Your task to perform on an android device: empty trash in google photos Image 0: 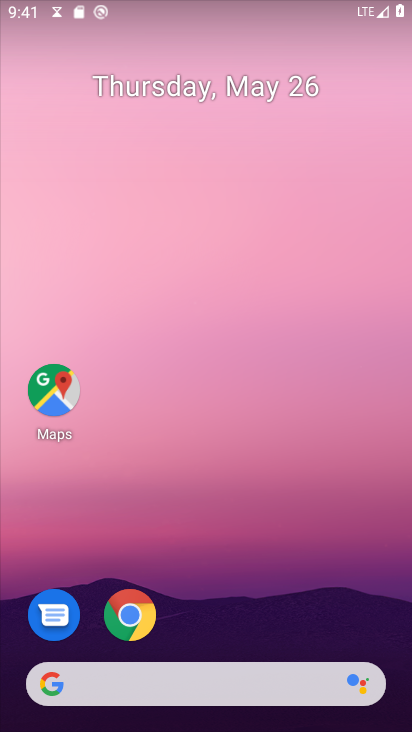
Step 0: drag from (216, 622) to (259, 244)
Your task to perform on an android device: empty trash in google photos Image 1: 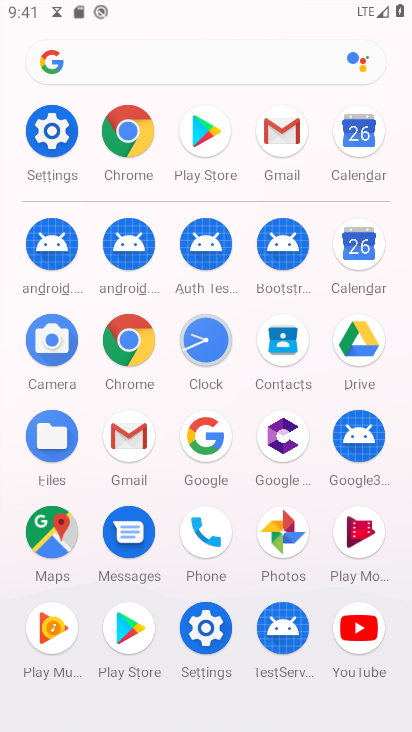
Step 1: click (280, 518)
Your task to perform on an android device: empty trash in google photos Image 2: 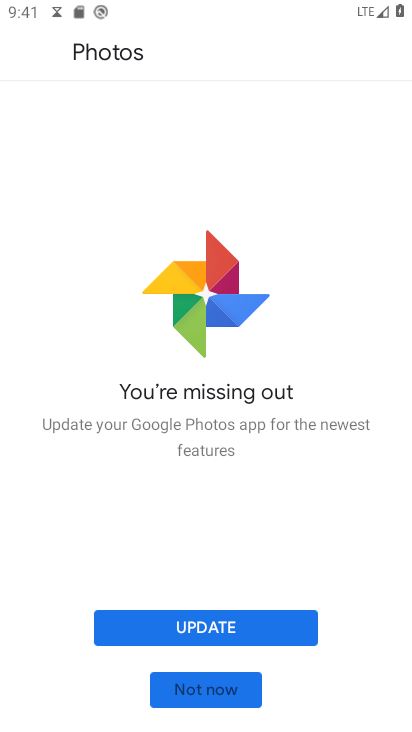
Step 2: click (218, 682)
Your task to perform on an android device: empty trash in google photos Image 3: 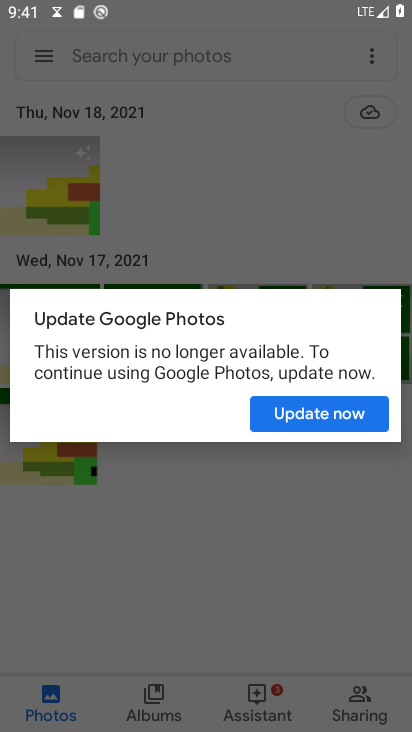
Step 3: click (327, 411)
Your task to perform on an android device: empty trash in google photos Image 4: 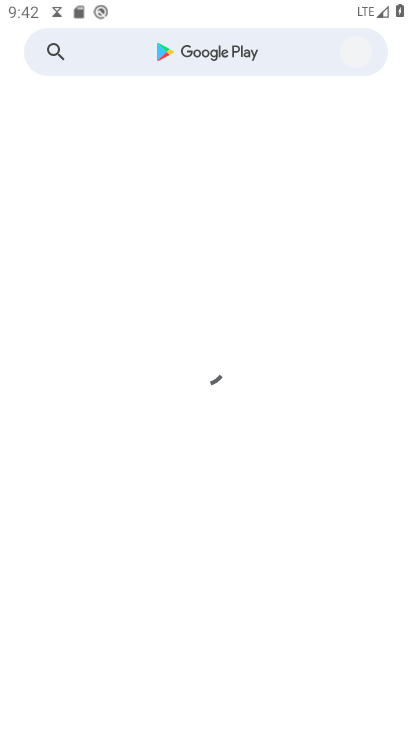
Step 4: press back button
Your task to perform on an android device: empty trash in google photos Image 5: 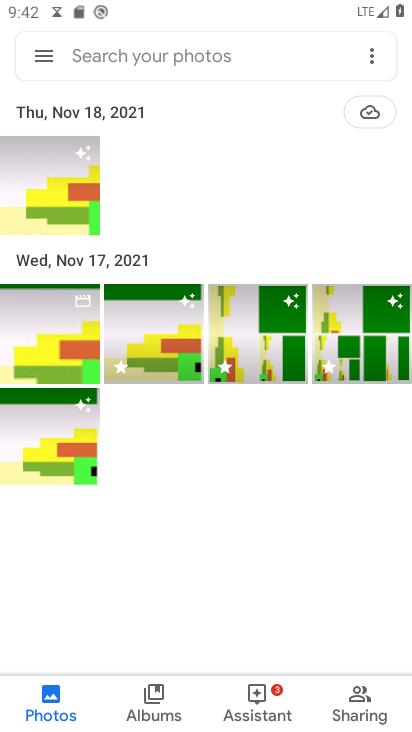
Step 5: click (34, 52)
Your task to perform on an android device: empty trash in google photos Image 6: 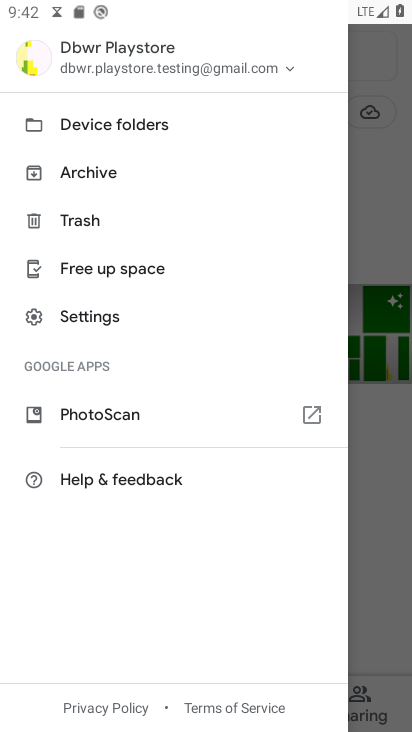
Step 6: click (99, 219)
Your task to perform on an android device: empty trash in google photos Image 7: 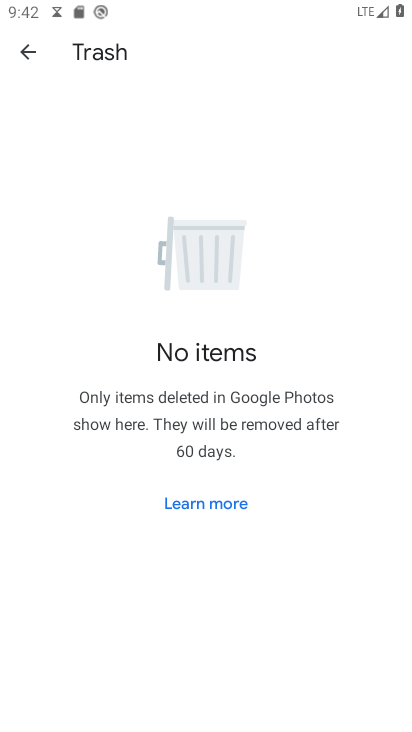
Step 7: task complete